Your task to perform on an android device: remove spam from my inbox in the gmail app Image 0: 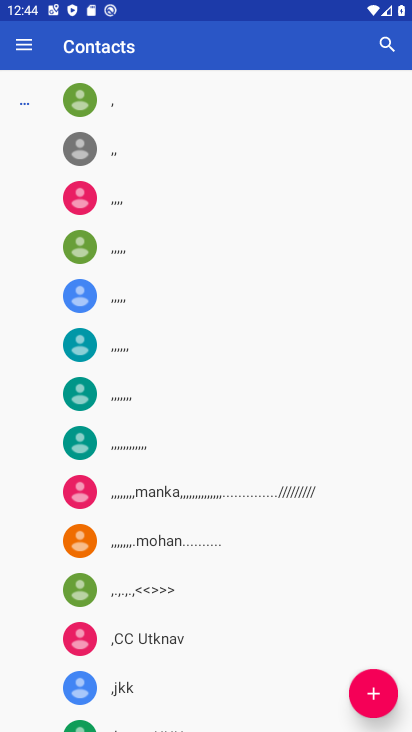
Step 0: press home button
Your task to perform on an android device: remove spam from my inbox in the gmail app Image 1: 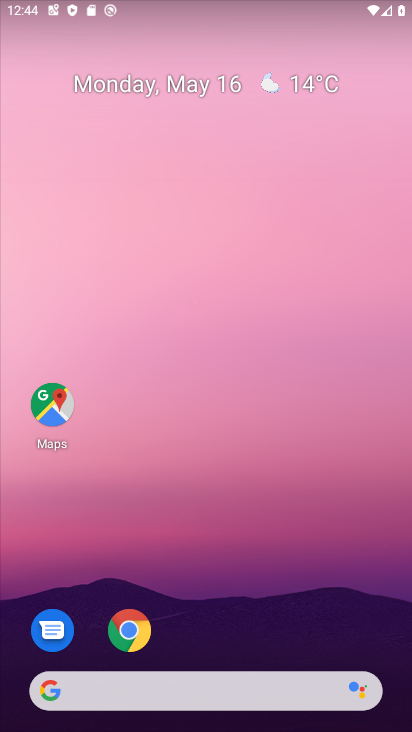
Step 1: drag from (316, 594) to (289, 37)
Your task to perform on an android device: remove spam from my inbox in the gmail app Image 2: 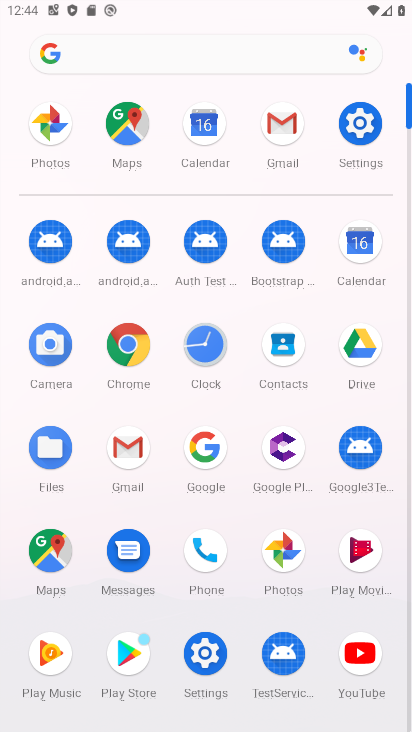
Step 2: click (141, 459)
Your task to perform on an android device: remove spam from my inbox in the gmail app Image 3: 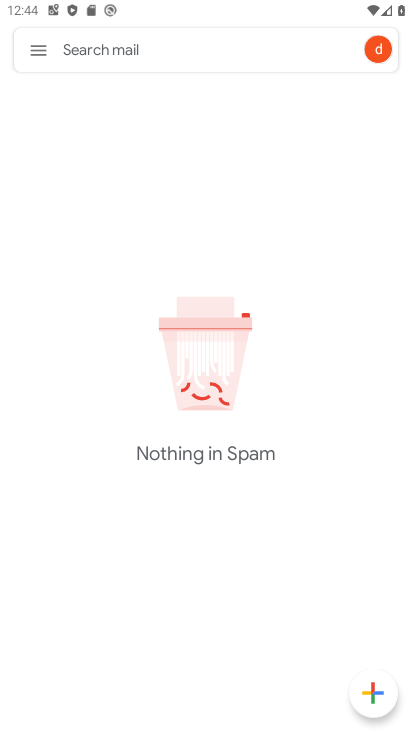
Step 3: click (34, 54)
Your task to perform on an android device: remove spam from my inbox in the gmail app Image 4: 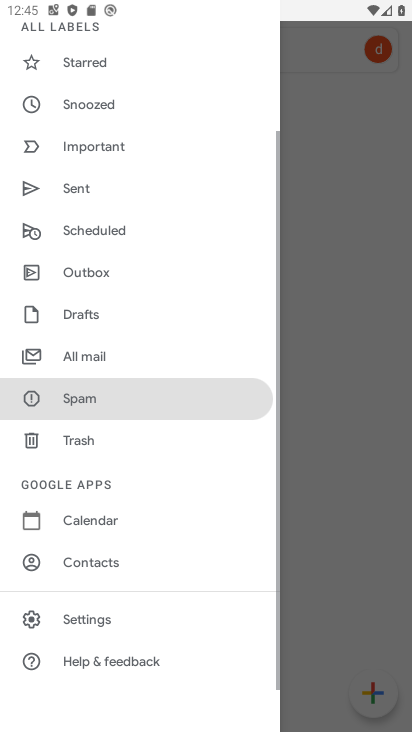
Step 4: task complete